Your task to perform on an android device: change notification settings in the gmail app Image 0: 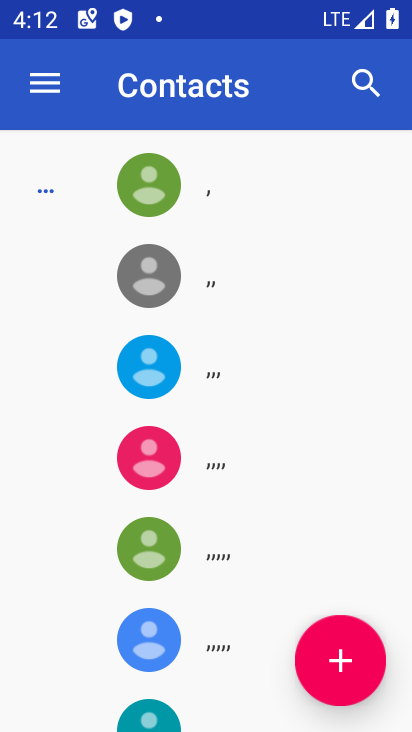
Step 0: press home button
Your task to perform on an android device: change notification settings in the gmail app Image 1: 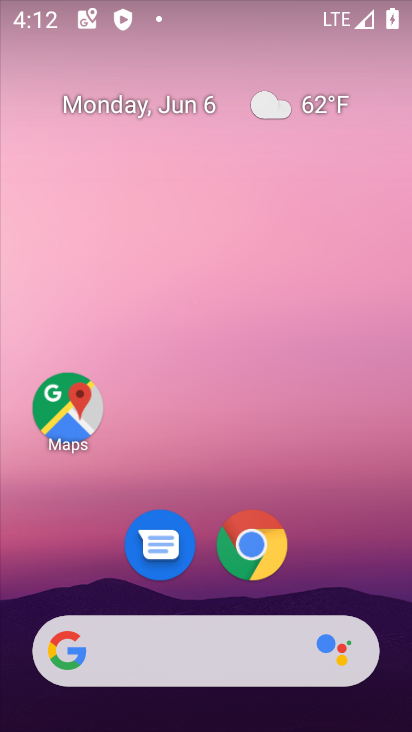
Step 1: drag from (249, 727) to (233, 30)
Your task to perform on an android device: change notification settings in the gmail app Image 2: 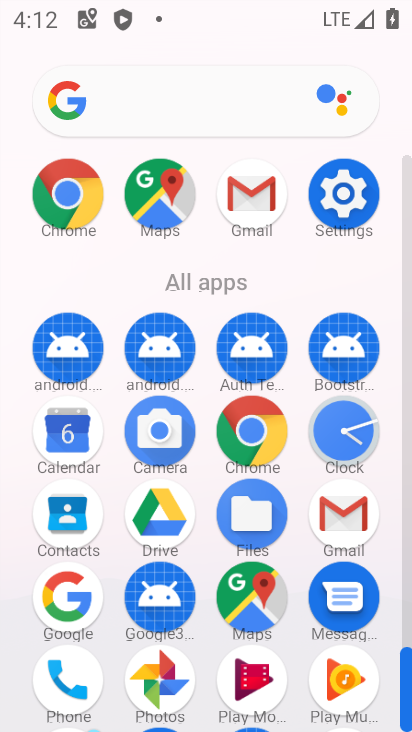
Step 2: click (340, 520)
Your task to perform on an android device: change notification settings in the gmail app Image 3: 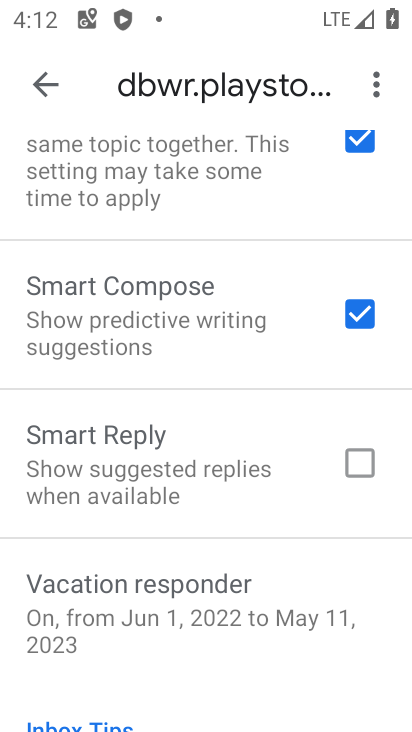
Step 3: drag from (213, 198) to (235, 703)
Your task to perform on an android device: change notification settings in the gmail app Image 4: 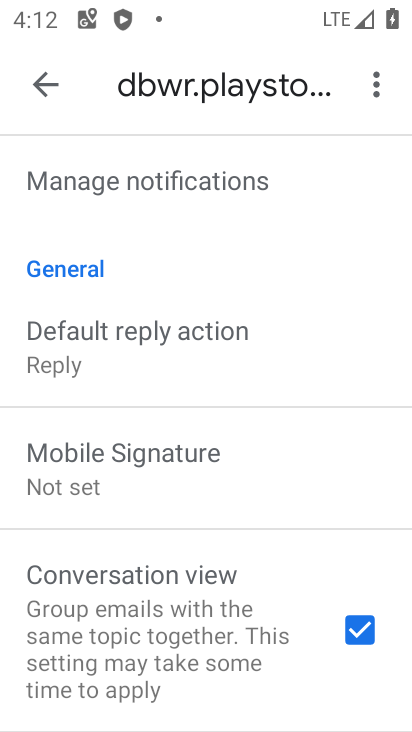
Step 4: drag from (155, 213) to (161, 673)
Your task to perform on an android device: change notification settings in the gmail app Image 5: 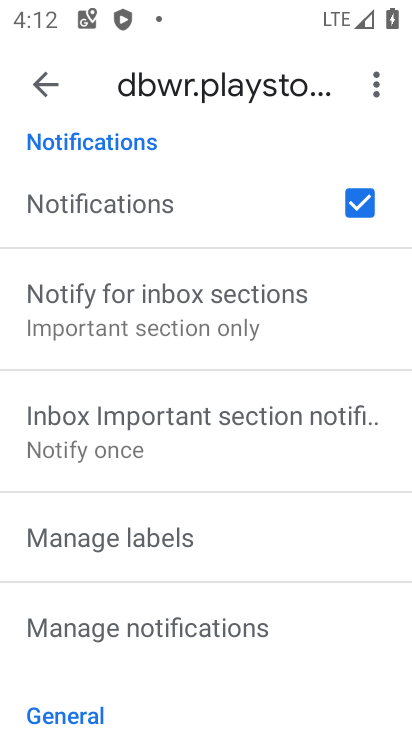
Step 5: drag from (182, 236) to (208, 543)
Your task to perform on an android device: change notification settings in the gmail app Image 6: 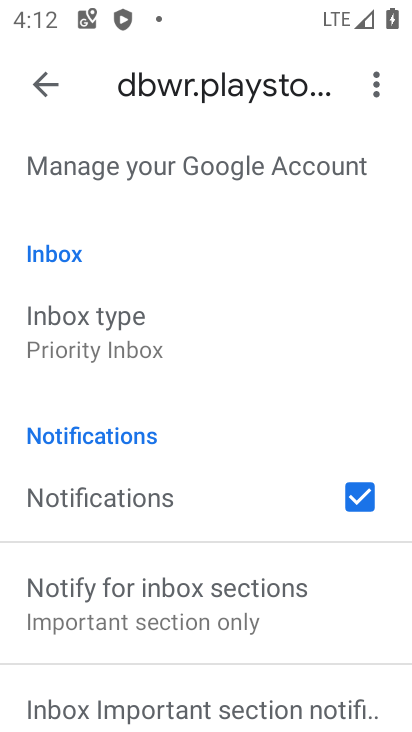
Step 6: click (346, 498)
Your task to perform on an android device: change notification settings in the gmail app Image 7: 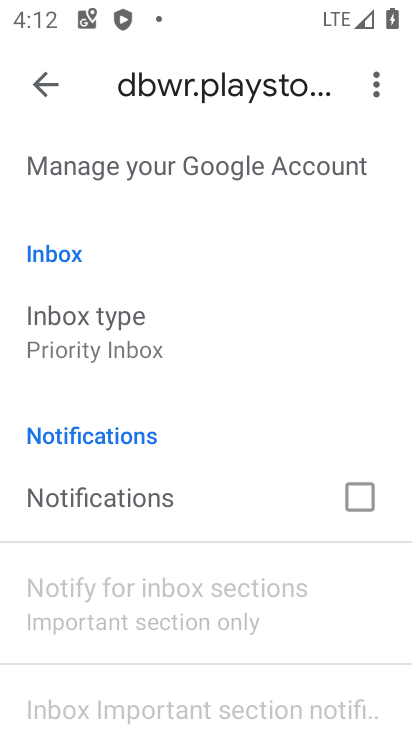
Step 7: task complete